Your task to perform on an android device: What's the weather today? Image 0: 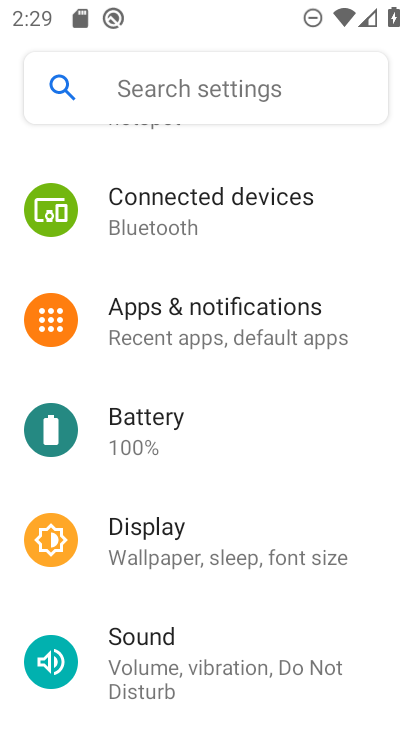
Step 0: press home button
Your task to perform on an android device: What's the weather today? Image 1: 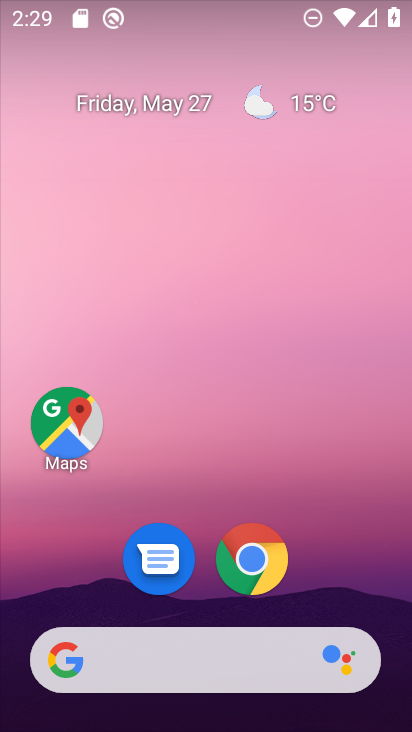
Step 1: drag from (28, 265) to (406, 260)
Your task to perform on an android device: What's the weather today? Image 2: 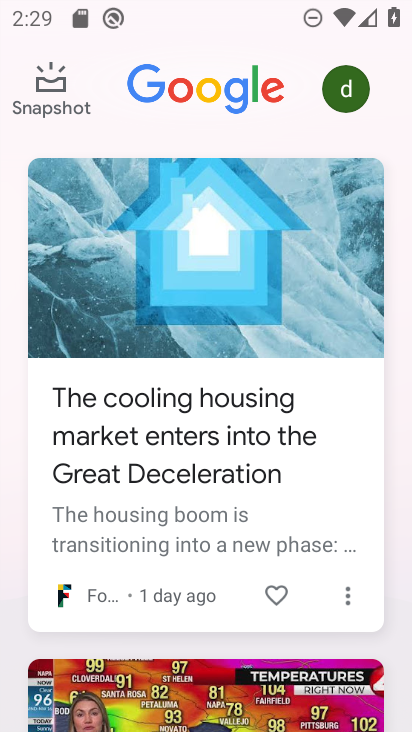
Step 2: drag from (403, 260) to (0, 302)
Your task to perform on an android device: What's the weather today? Image 3: 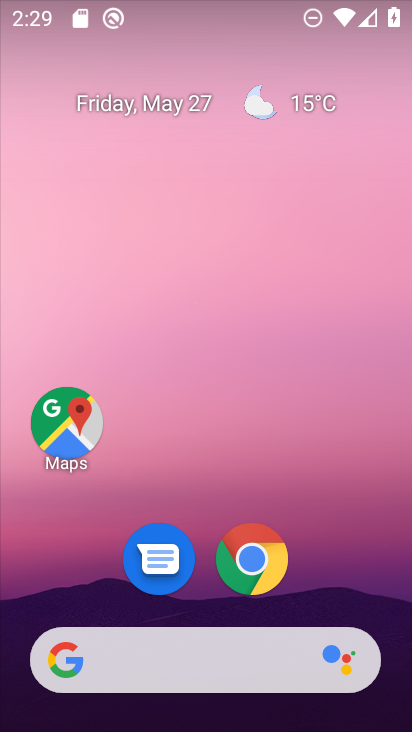
Step 3: click (300, 105)
Your task to perform on an android device: What's the weather today? Image 4: 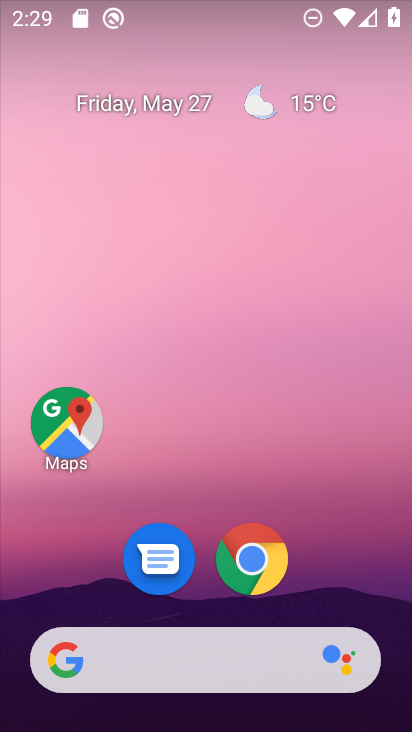
Step 4: click (263, 106)
Your task to perform on an android device: What's the weather today? Image 5: 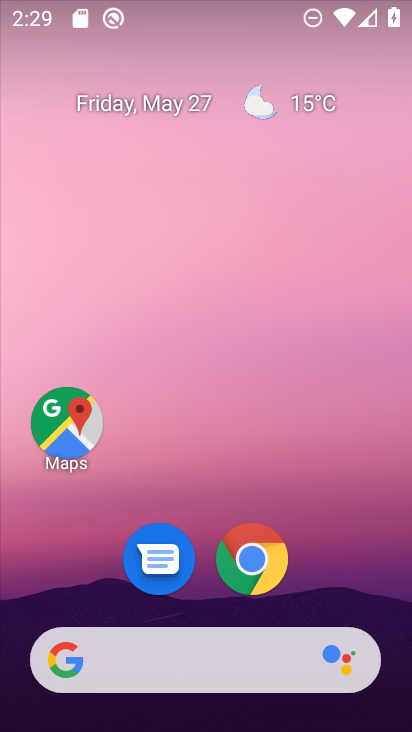
Step 5: click (322, 105)
Your task to perform on an android device: What's the weather today? Image 6: 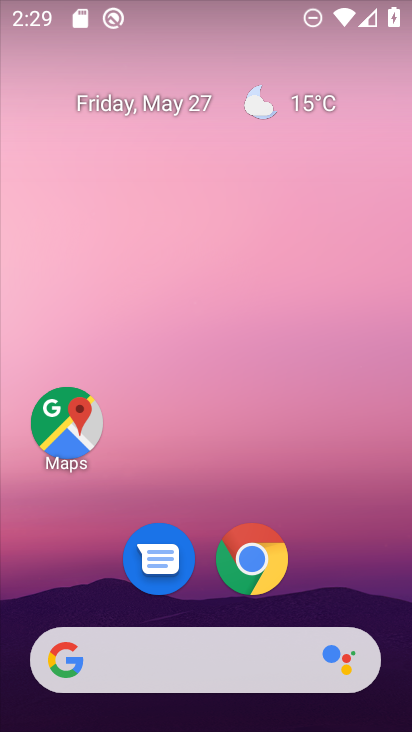
Step 6: drag from (337, 647) to (287, 20)
Your task to perform on an android device: What's the weather today? Image 7: 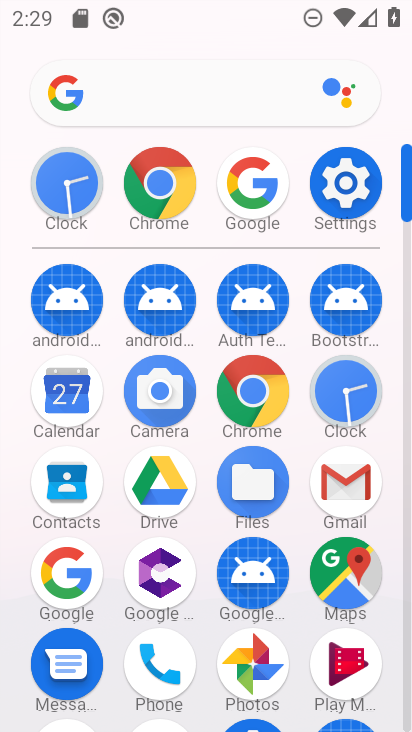
Step 7: click (72, 576)
Your task to perform on an android device: What's the weather today? Image 8: 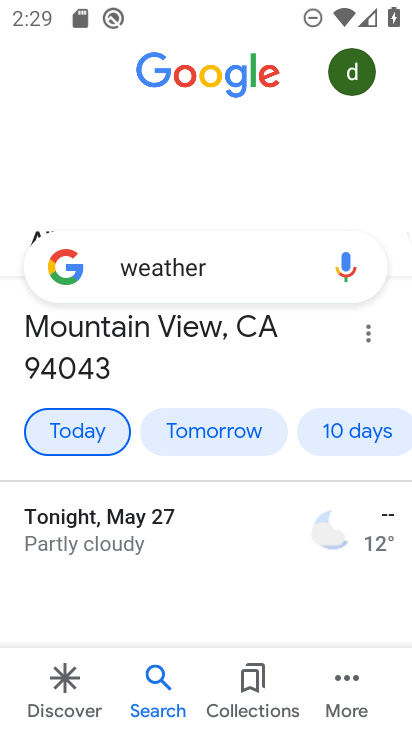
Step 8: task complete